Your task to perform on an android device: open a new tab in the chrome app Image 0: 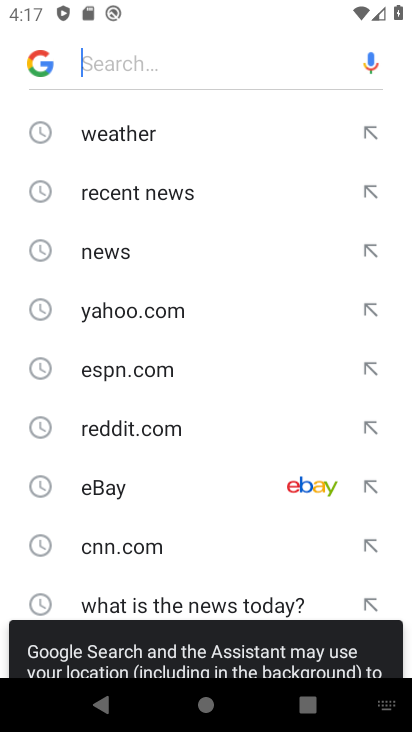
Step 0: press home button
Your task to perform on an android device: open a new tab in the chrome app Image 1: 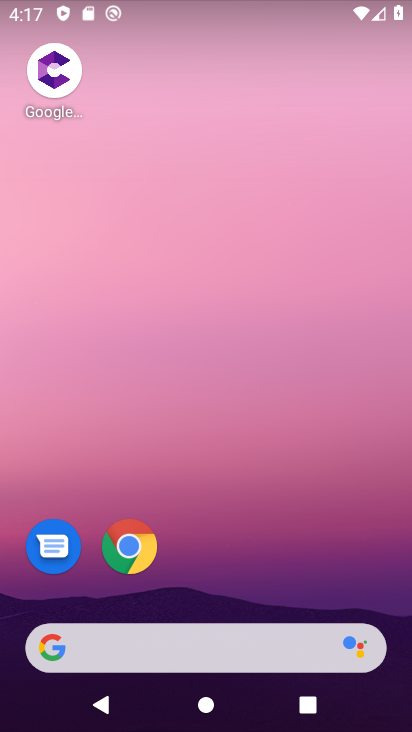
Step 1: click (117, 557)
Your task to perform on an android device: open a new tab in the chrome app Image 2: 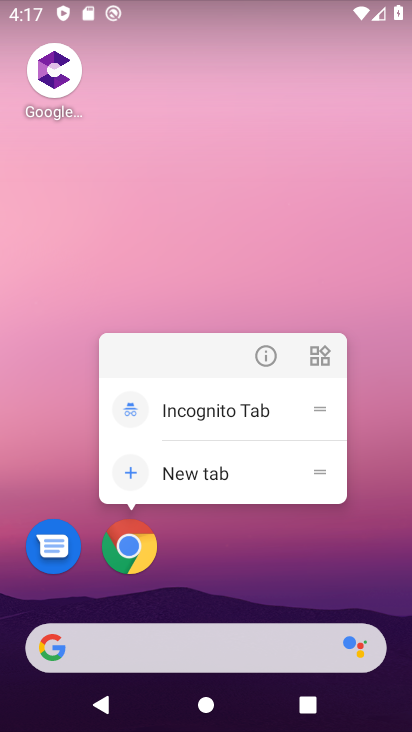
Step 2: click (134, 557)
Your task to perform on an android device: open a new tab in the chrome app Image 3: 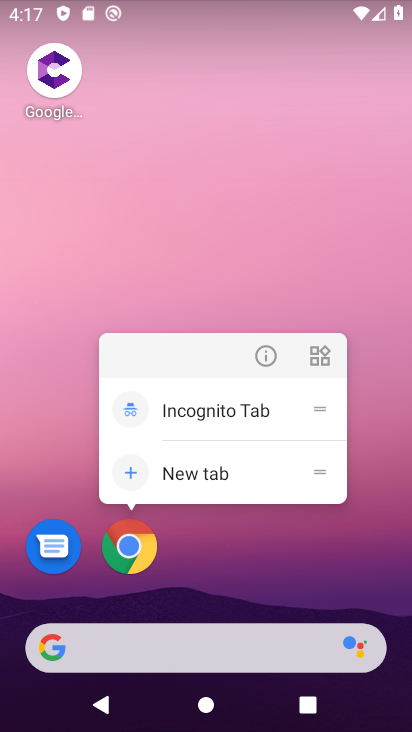
Step 3: click (134, 557)
Your task to perform on an android device: open a new tab in the chrome app Image 4: 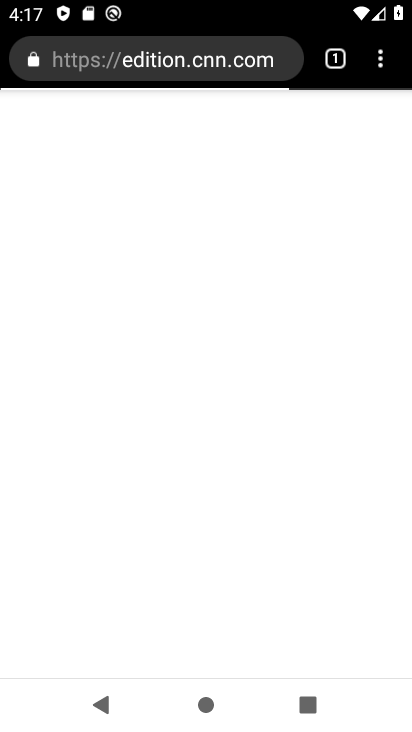
Step 4: task complete